Your task to perform on an android device: refresh tabs in the chrome app Image 0: 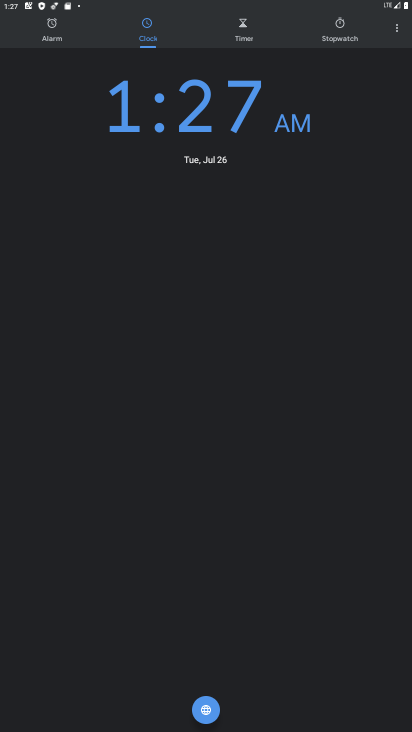
Step 0: press home button
Your task to perform on an android device: refresh tabs in the chrome app Image 1: 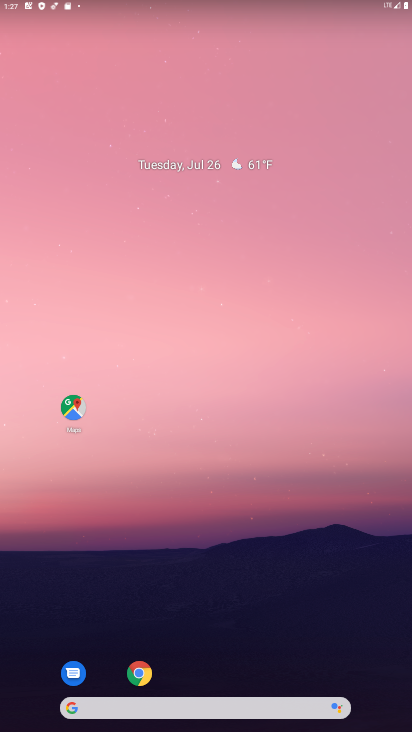
Step 1: click (137, 674)
Your task to perform on an android device: refresh tabs in the chrome app Image 2: 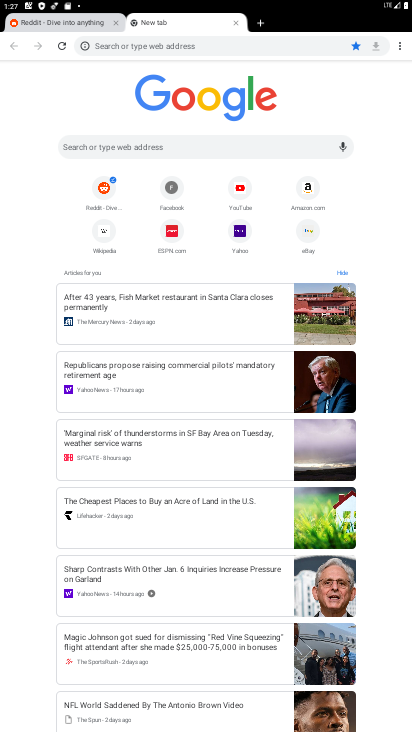
Step 2: click (62, 46)
Your task to perform on an android device: refresh tabs in the chrome app Image 3: 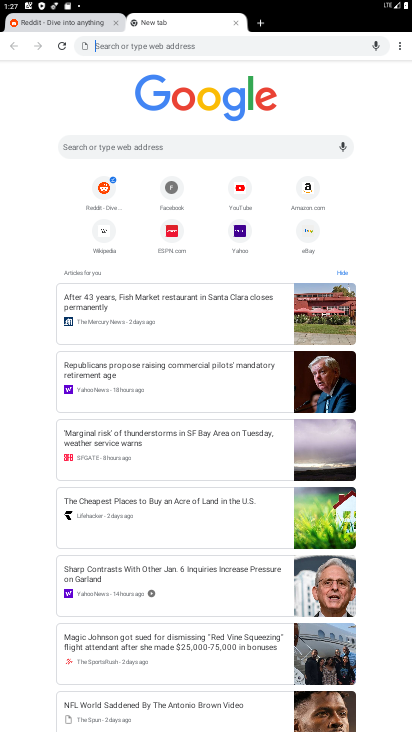
Step 3: task complete